Your task to perform on an android device: toggle improve location accuracy Image 0: 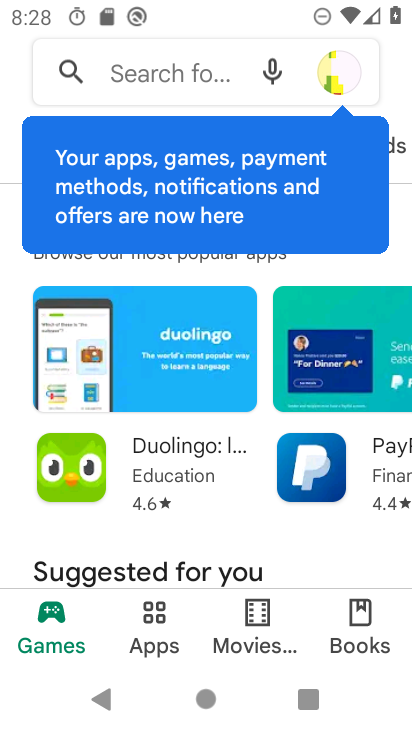
Step 0: press home button
Your task to perform on an android device: toggle improve location accuracy Image 1: 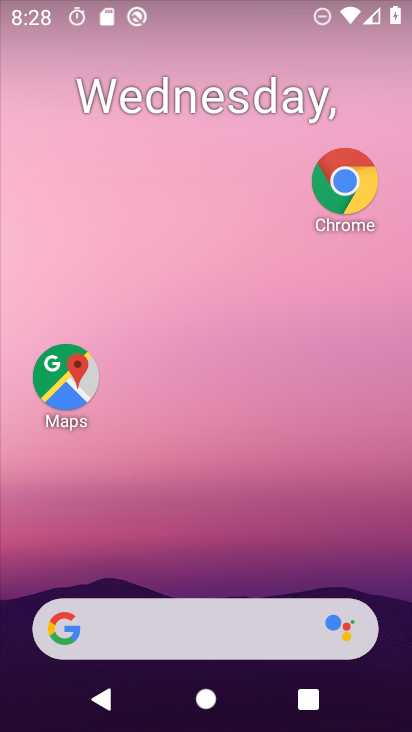
Step 1: drag from (164, 632) to (178, 188)
Your task to perform on an android device: toggle improve location accuracy Image 2: 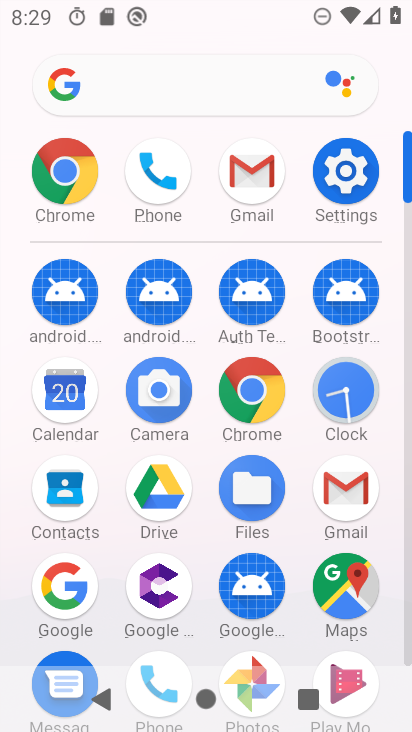
Step 2: click (356, 175)
Your task to perform on an android device: toggle improve location accuracy Image 3: 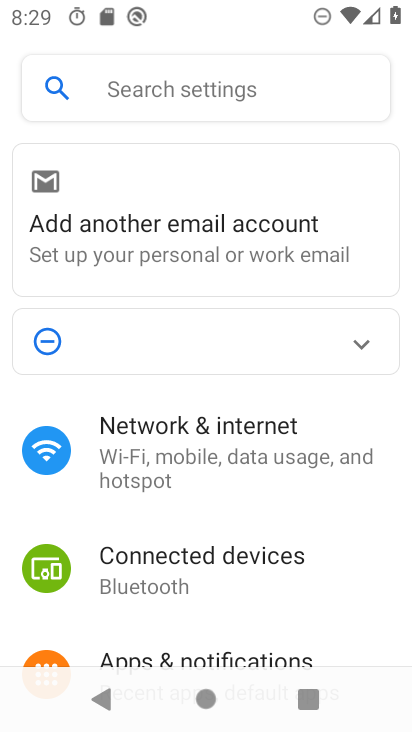
Step 3: click (225, 596)
Your task to perform on an android device: toggle improve location accuracy Image 4: 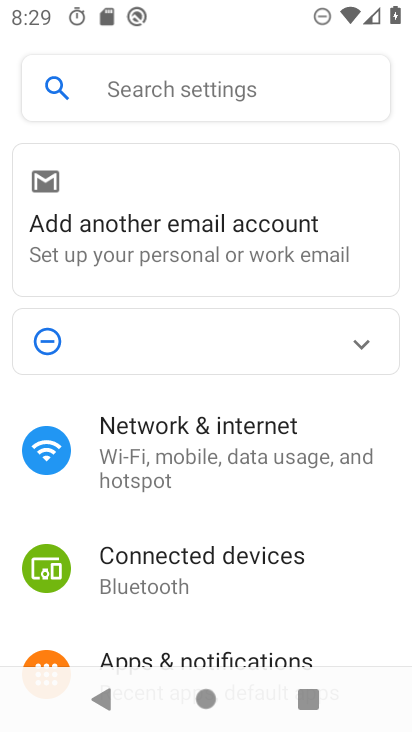
Step 4: click (171, 80)
Your task to perform on an android device: toggle improve location accuracy Image 5: 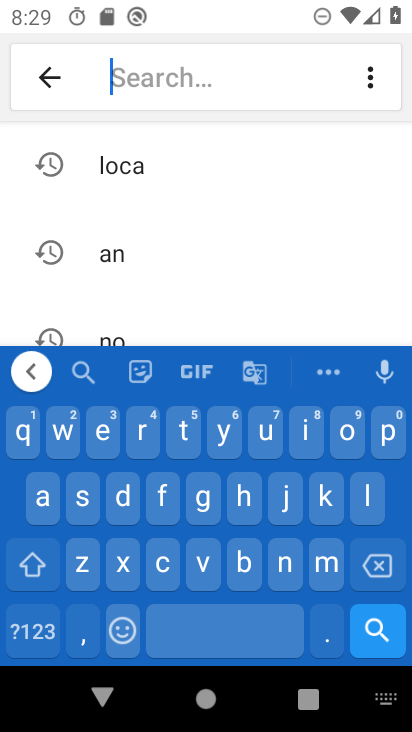
Step 5: click (162, 173)
Your task to perform on an android device: toggle improve location accuracy Image 6: 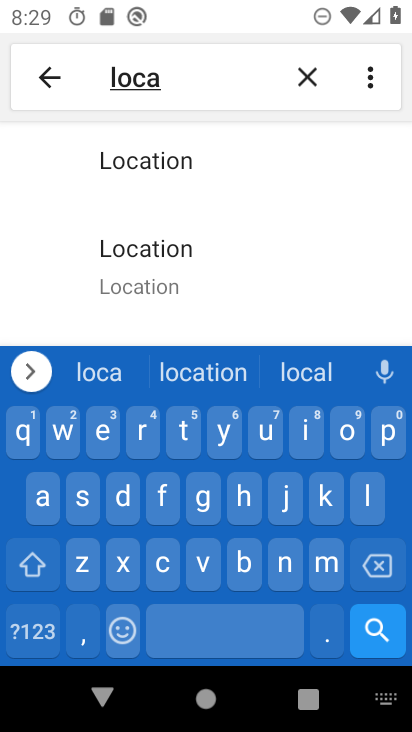
Step 6: click (130, 267)
Your task to perform on an android device: toggle improve location accuracy Image 7: 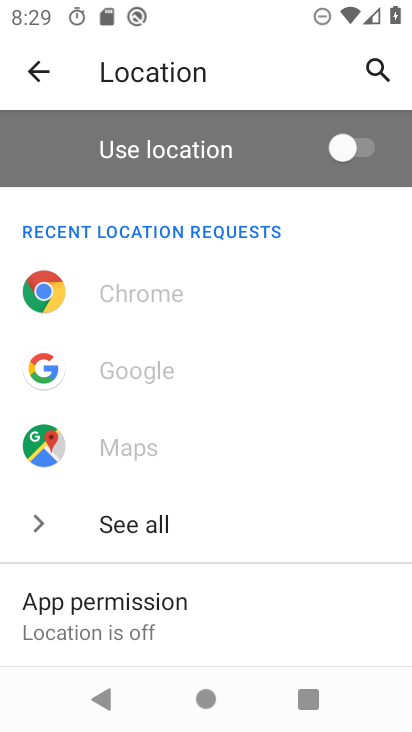
Step 7: drag from (170, 479) to (210, 236)
Your task to perform on an android device: toggle improve location accuracy Image 8: 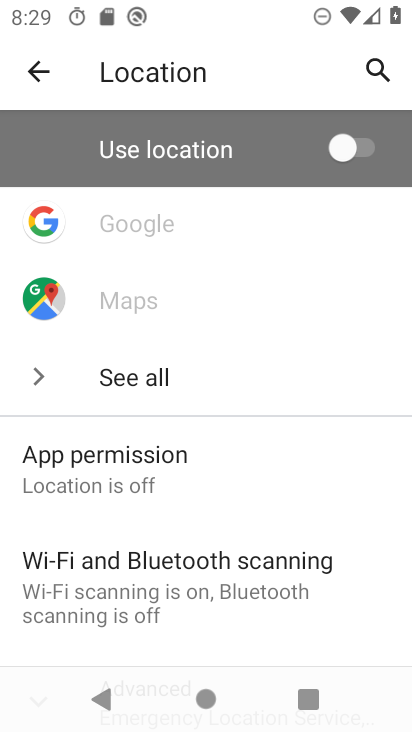
Step 8: drag from (154, 569) to (239, 254)
Your task to perform on an android device: toggle improve location accuracy Image 9: 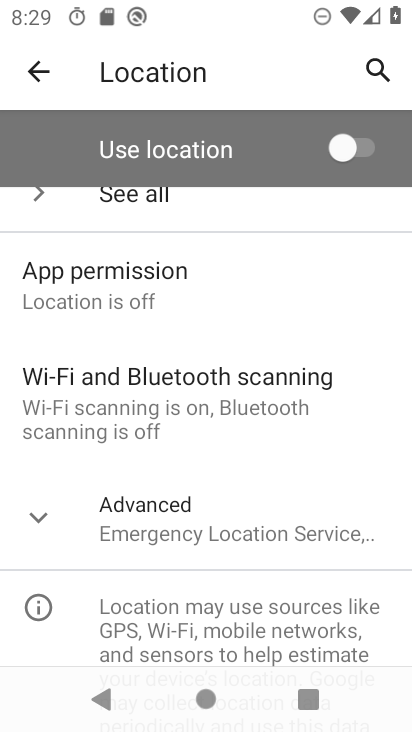
Step 9: click (115, 524)
Your task to perform on an android device: toggle improve location accuracy Image 10: 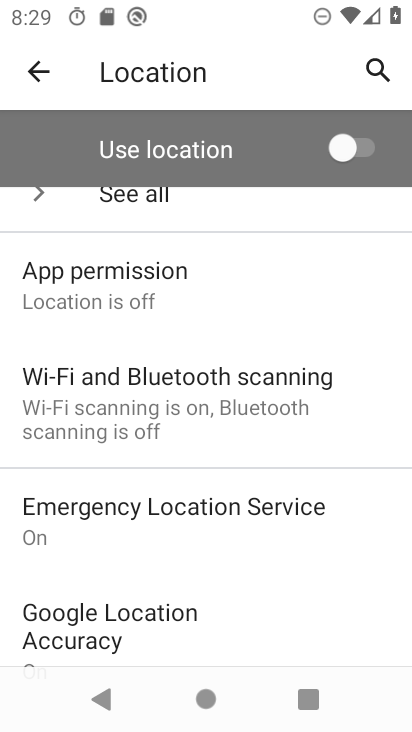
Step 10: click (136, 624)
Your task to perform on an android device: toggle improve location accuracy Image 11: 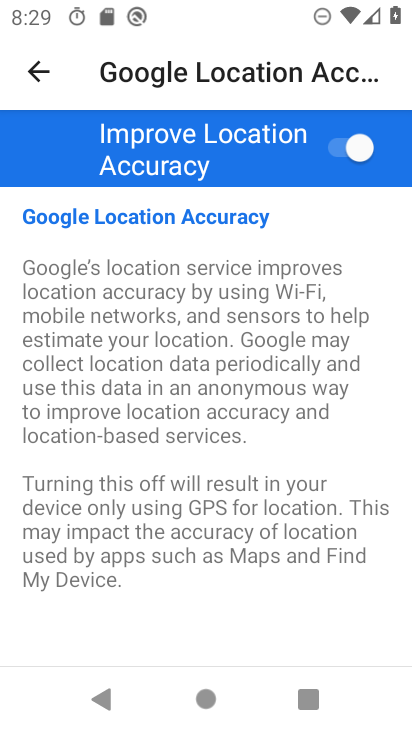
Step 11: task complete